Your task to perform on an android device: change your default location settings in chrome Image 0: 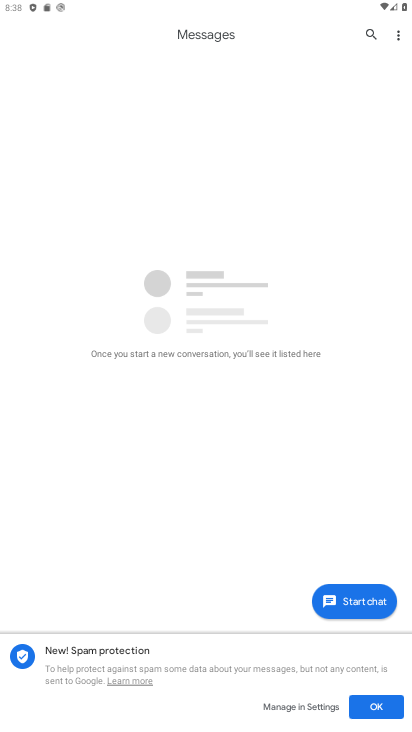
Step 0: press home button
Your task to perform on an android device: change your default location settings in chrome Image 1: 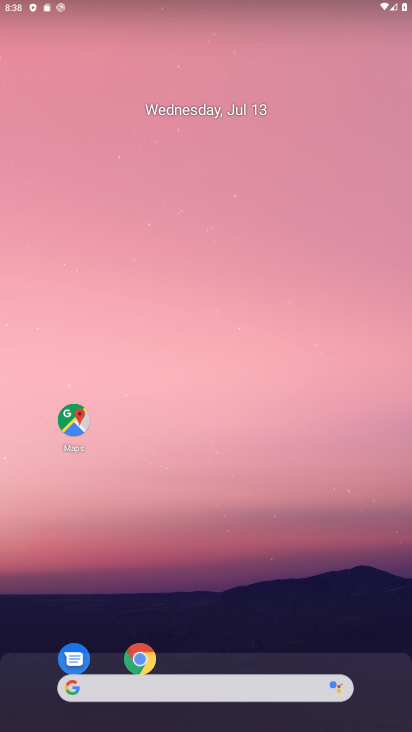
Step 1: click (144, 657)
Your task to perform on an android device: change your default location settings in chrome Image 2: 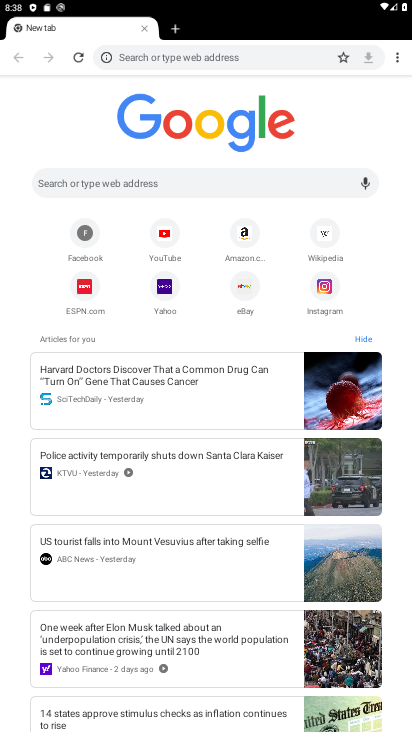
Step 2: click (398, 60)
Your task to perform on an android device: change your default location settings in chrome Image 3: 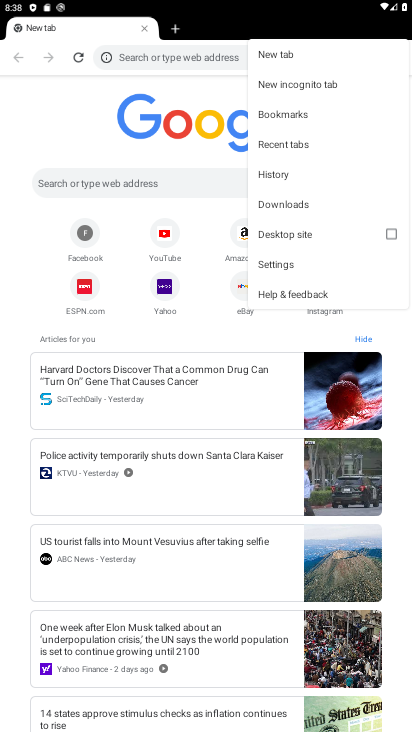
Step 3: click (265, 264)
Your task to perform on an android device: change your default location settings in chrome Image 4: 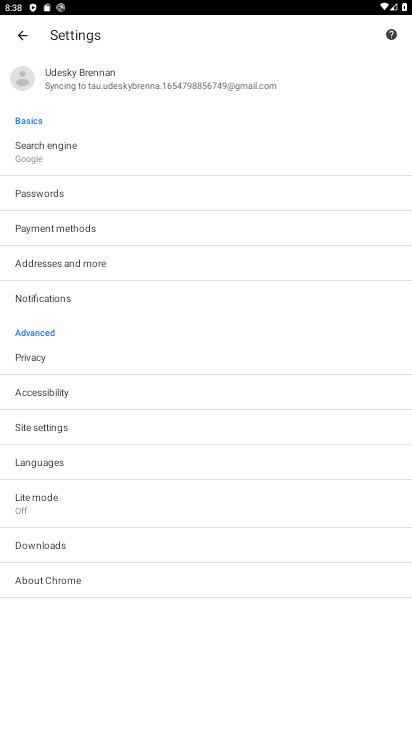
Step 4: click (45, 428)
Your task to perform on an android device: change your default location settings in chrome Image 5: 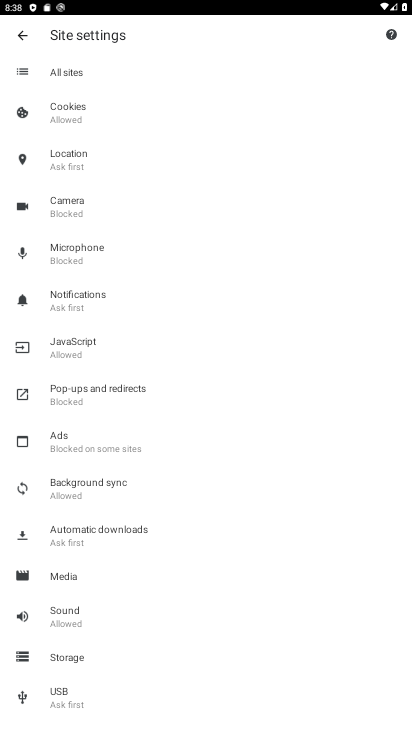
Step 5: click (146, 162)
Your task to perform on an android device: change your default location settings in chrome Image 6: 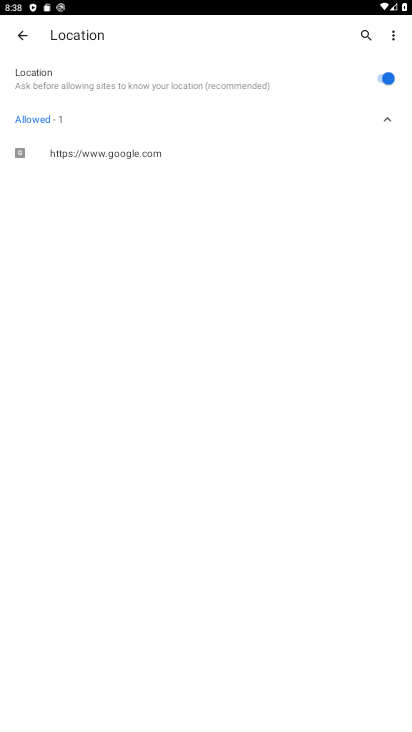
Step 6: click (386, 70)
Your task to perform on an android device: change your default location settings in chrome Image 7: 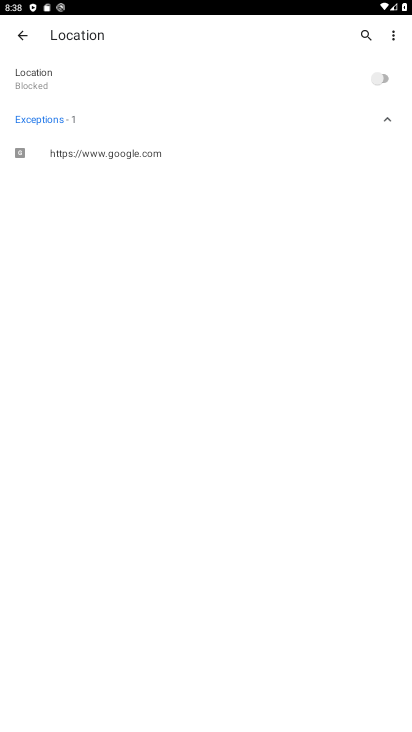
Step 7: task complete